Your task to perform on an android device: uninstall "Google Keep" Image 0: 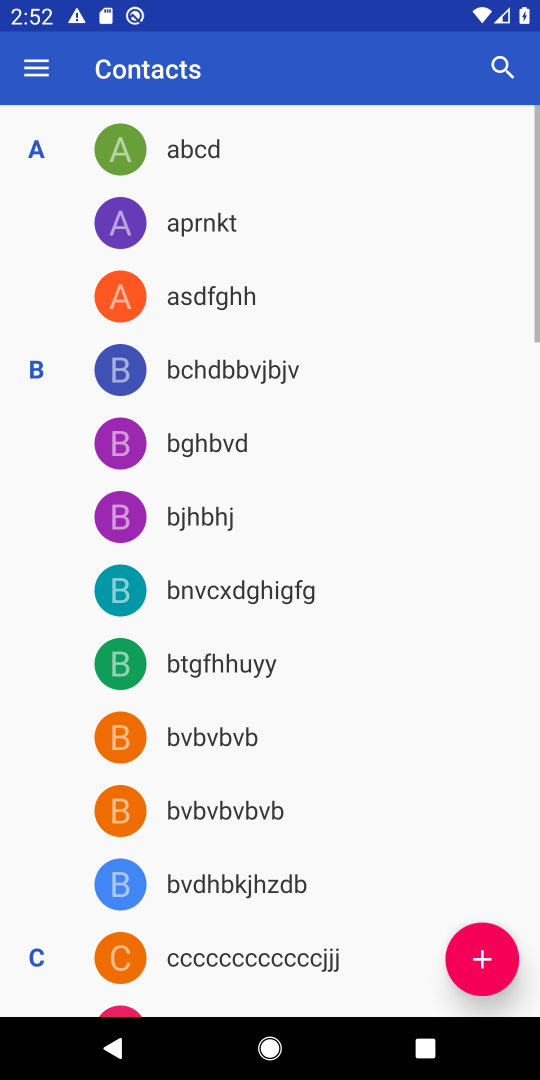
Step 0: press home button
Your task to perform on an android device: uninstall "Google Keep" Image 1: 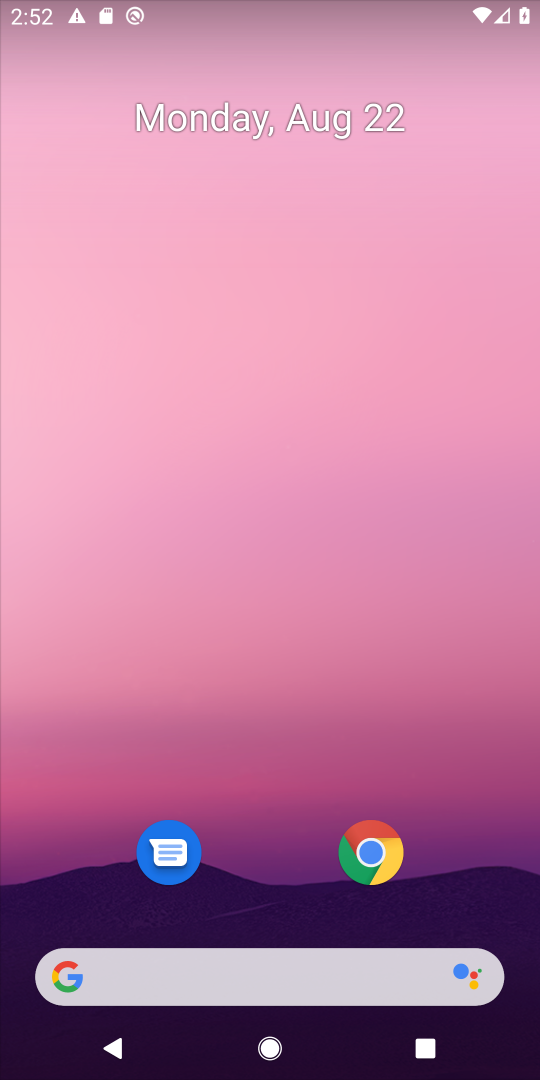
Step 1: drag from (260, 423) to (260, 27)
Your task to perform on an android device: uninstall "Google Keep" Image 2: 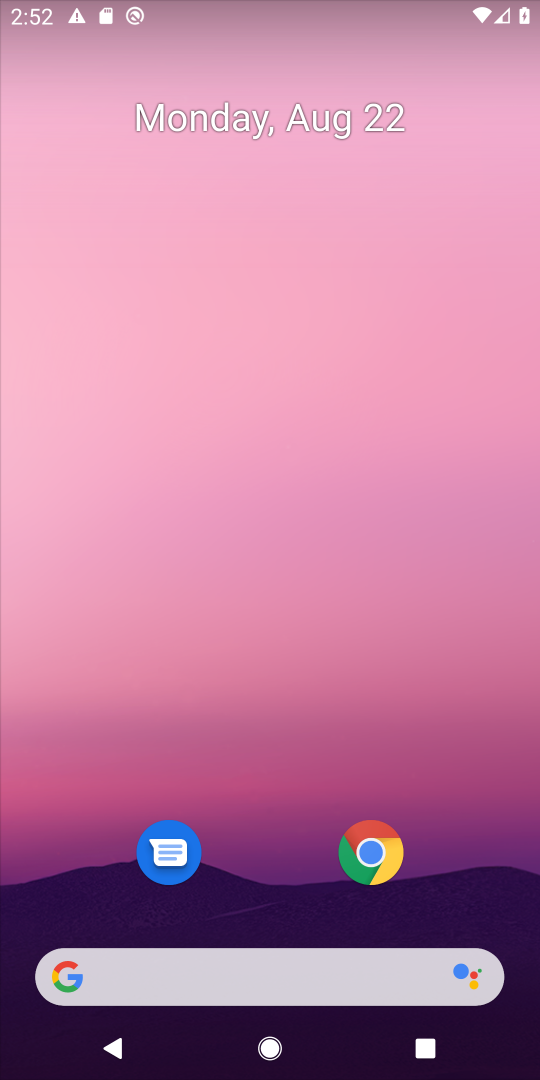
Step 2: drag from (272, 940) to (249, 41)
Your task to perform on an android device: uninstall "Google Keep" Image 3: 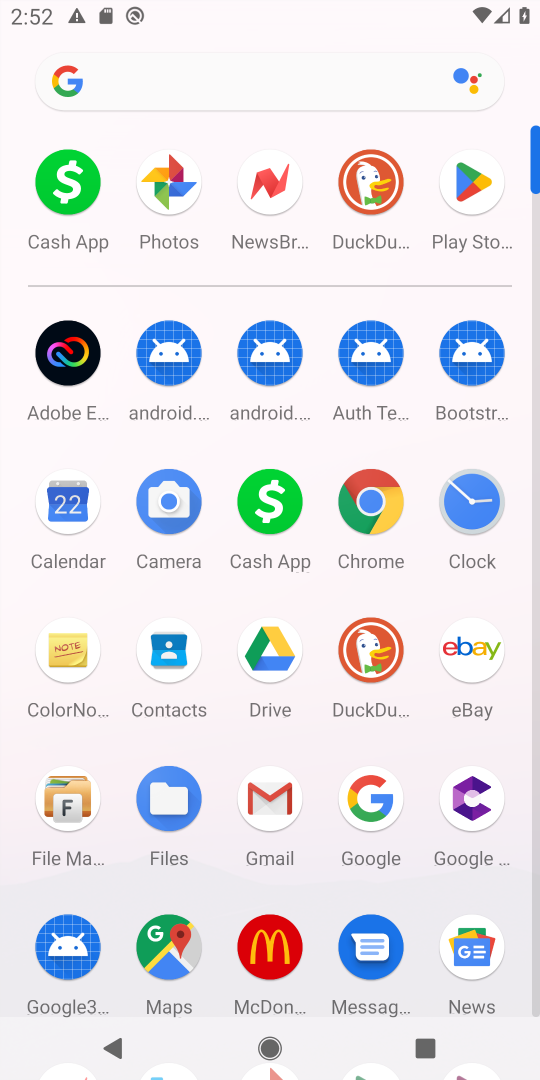
Step 3: click (477, 183)
Your task to perform on an android device: uninstall "Google Keep" Image 4: 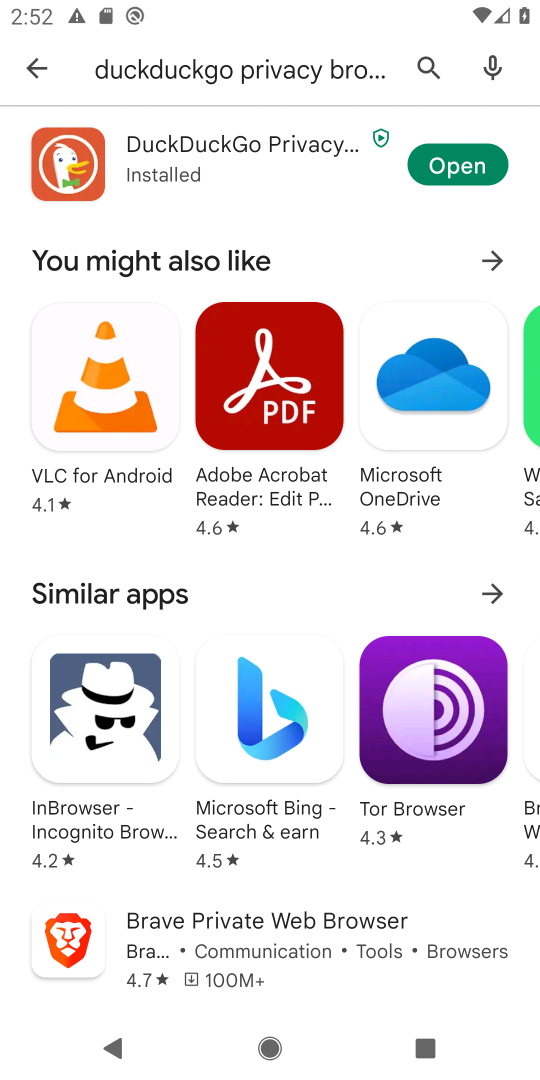
Step 4: click (429, 63)
Your task to perform on an android device: uninstall "Google Keep" Image 5: 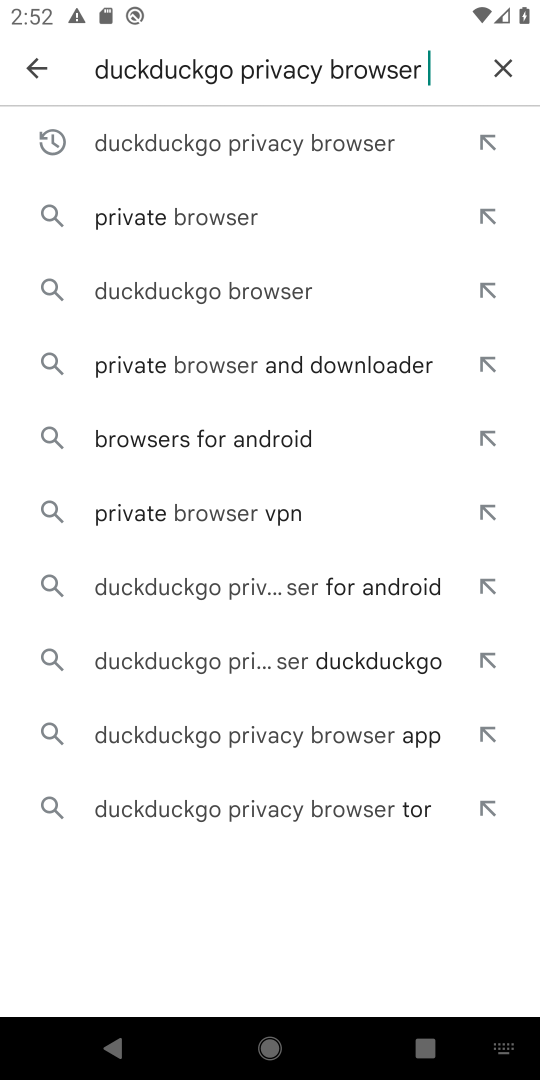
Step 5: click (505, 68)
Your task to perform on an android device: uninstall "Google Keep" Image 6: 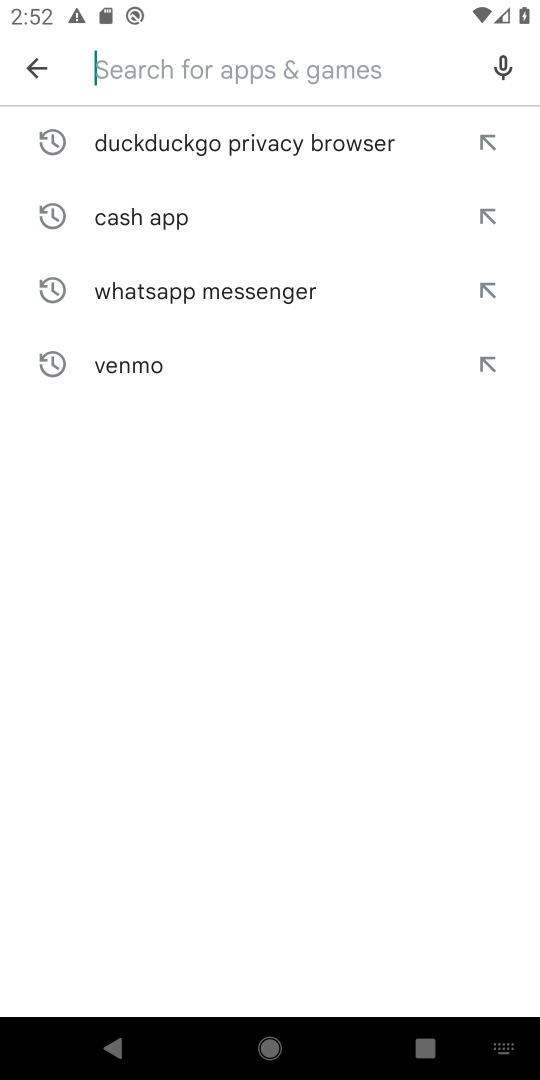
Step 6: type "GOOGle Keep"
Your task to perform on an android device: uninstall "Google Keep" Image 7: 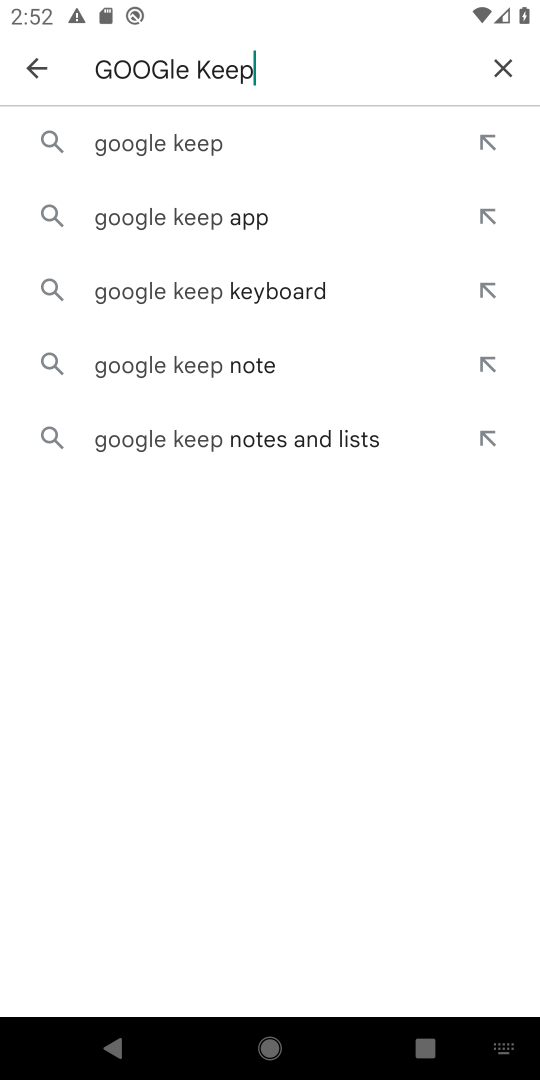
Step 7: click (182, 144)
Your task to perform on an android device: uninstall "Google Keep" Image 8: 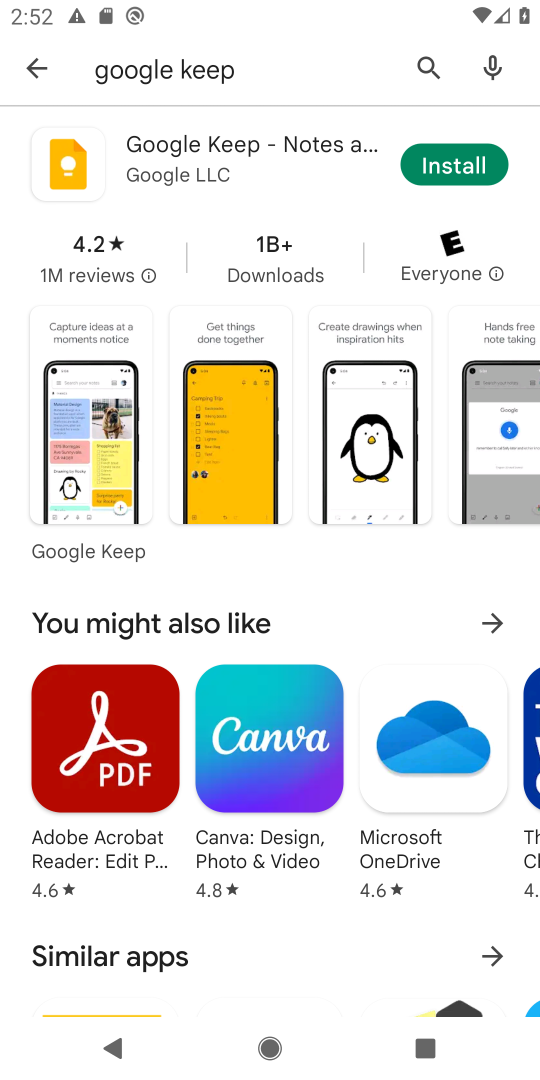
Step 8: click (202, 156)
Your task to perform on an android device: uninstall "Google Keep" Image 9: 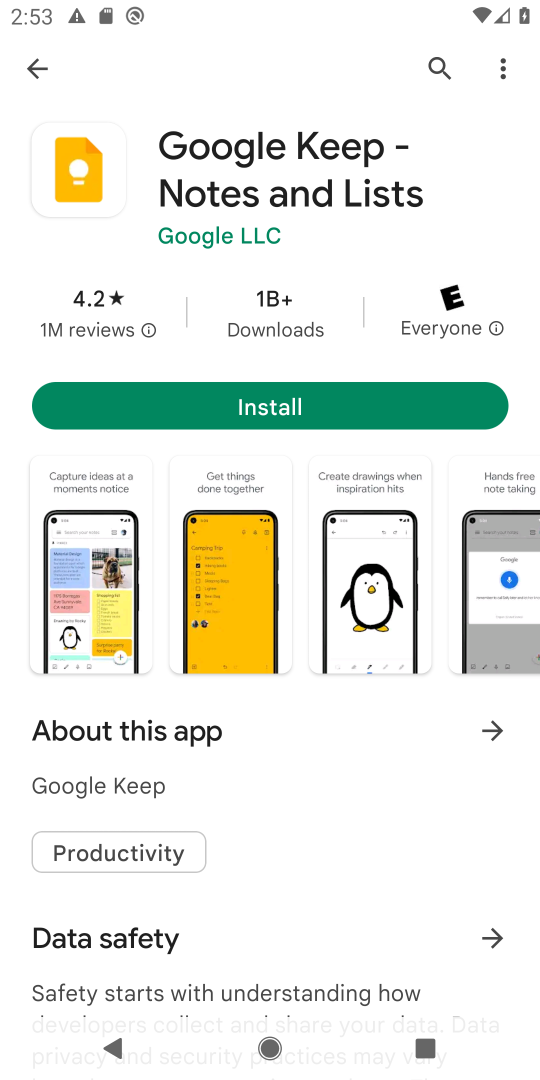
Step 9: task complete